Your task to perform on an android device: delete a single message in the gmail app Image 0: 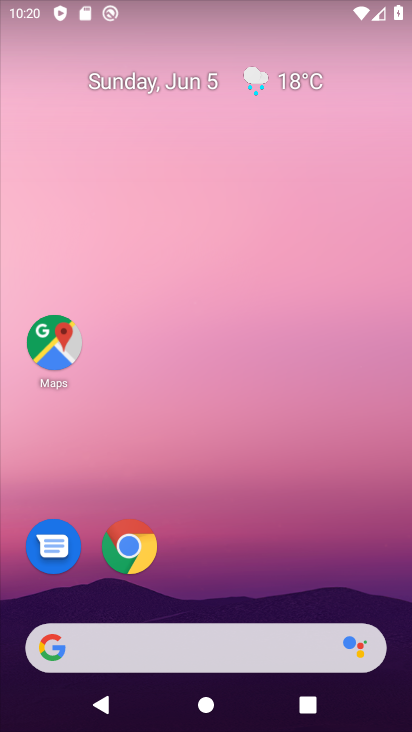
Step 0: drag from (279, 555) to (384, 1)
Your task to perform on an android device: delete a single message in the gmail app Image 1: 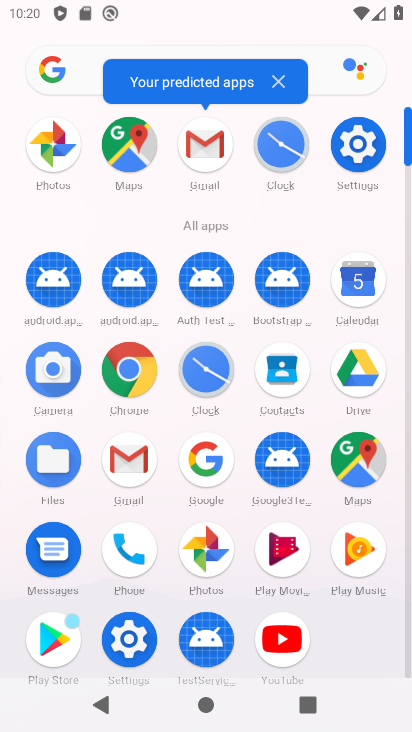
Step 1: click (213, 155)
Your task to perform on an android device: delete a single message in the gmail app Image 2: 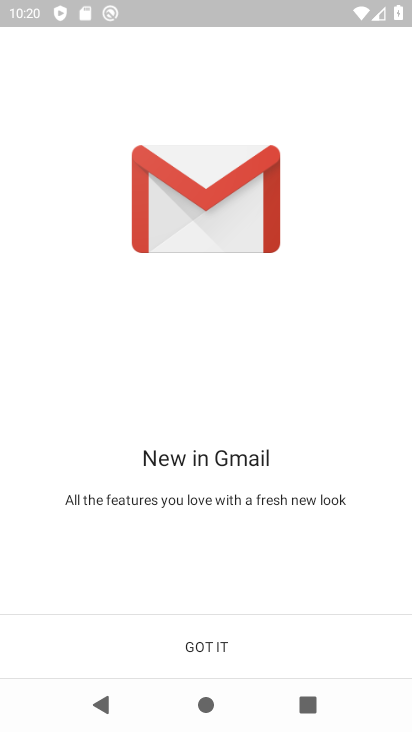
Step 2: click (275, 645)
Your task to perform on an android device: delete a single message in the gmail app Image 3: 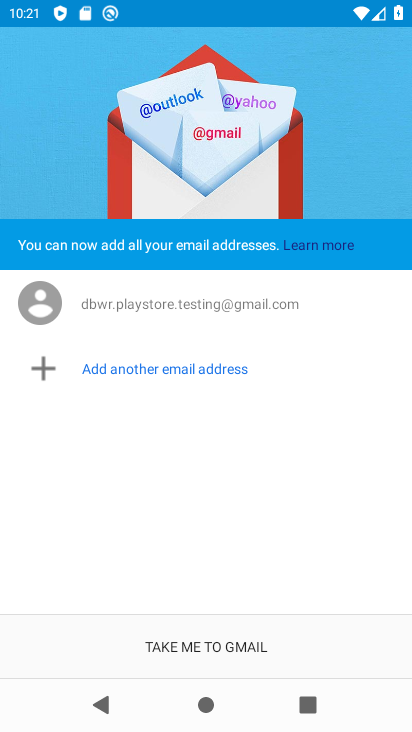
Step 3: click (222, 633)
Your task to perform on an android device: delete a single message in the gmail app Image 4: 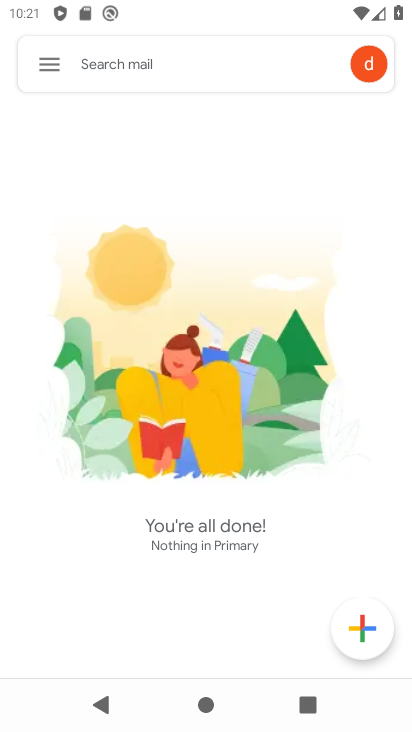
Step 4: press home button
Your task to perform on an android device: delete a single message in the gmail app Image 5: 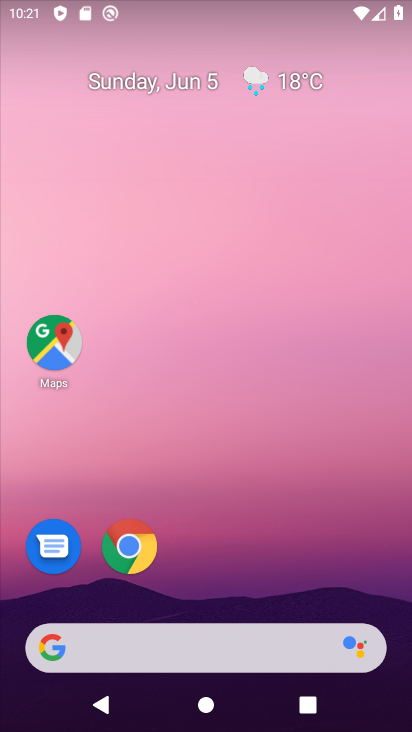
Step 5: drag from (254, 526) to (399, 65)
Your task to perform on an android device: delete a single message in the gmail app Image 6: 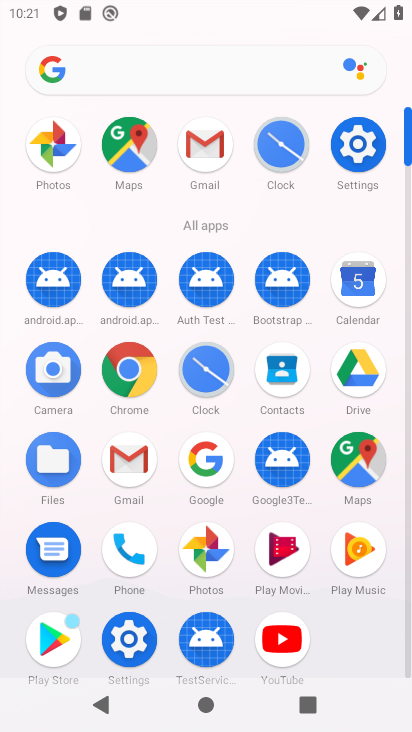
Step 6: click (135, 454)
Your task to perform on an android device: delete a single message in the gmail app Image 7: 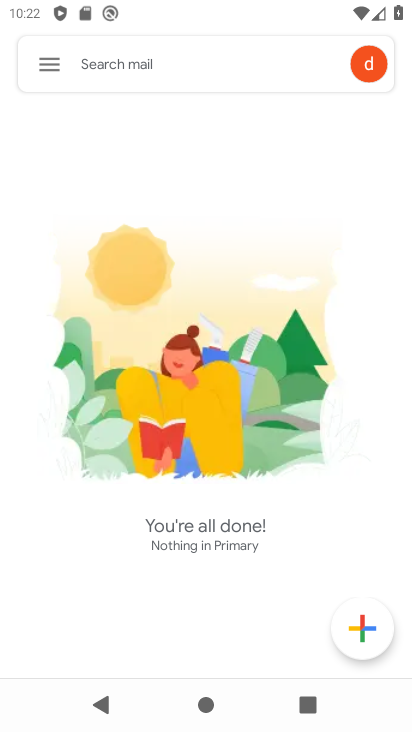
Step 7: task complete